Your task to perform on an android device: all mails in gmail Image 0: 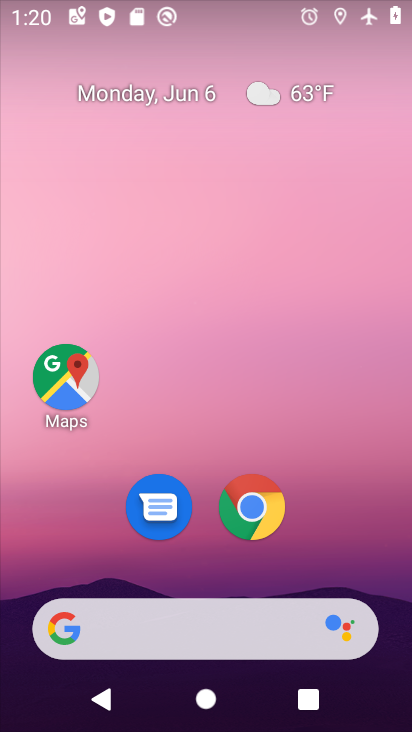
Step 0: drag from (334, 511) to (214, 2)
Your task to perform on an android device: all mails in gmail Image 1: 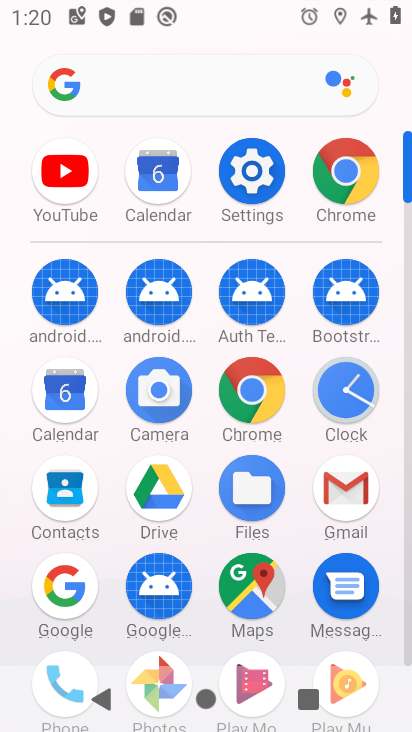
Step 1: click (349, 497)
Your task to perform on an android device: all mails in gmail Image 2: 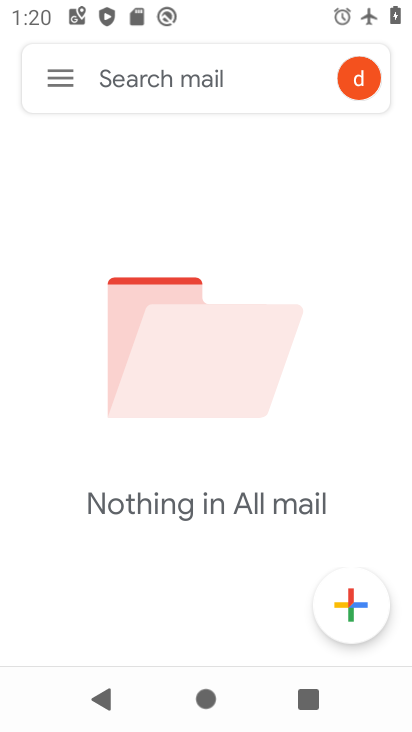
Step 2: task complete